Your task to perform on an android device: Open notification settings Image 0: 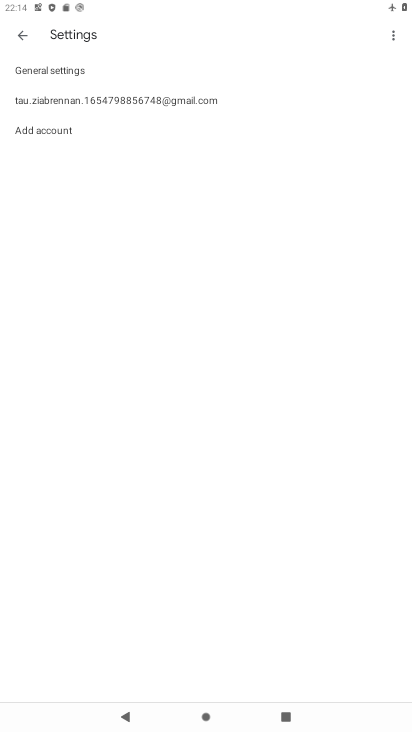
Step 0: press home button
Your task to perform on an android device: Open notification settings Image 1: 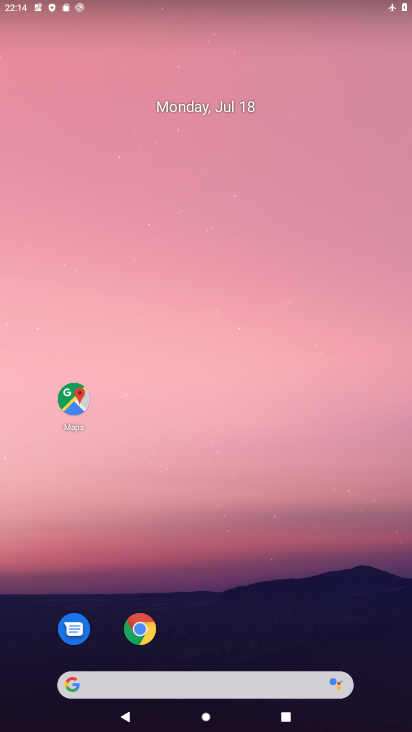
Step 1: drag from (303, 616) to (342, 243)
Your task to perform on an android device: Open notification settings Image 2: 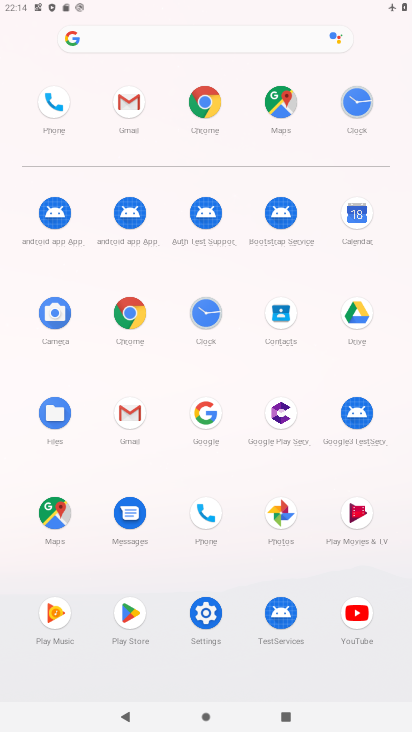
Step 2: click (199, 620)
Your task to perform on an android device: Open notification settings Image 3: 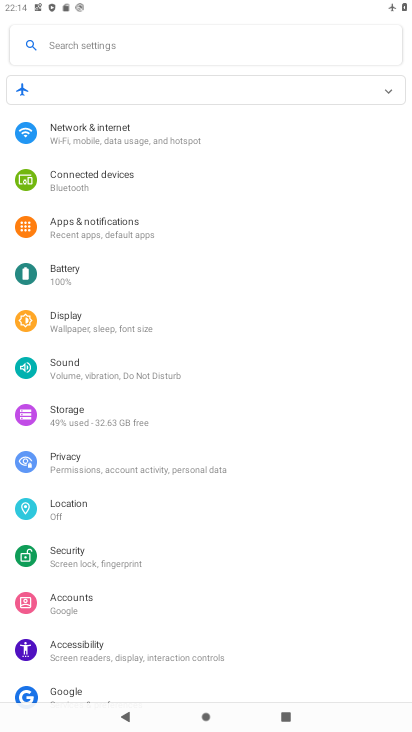
Step 3: click (129, 238)
Your task to perform on an android device: Open notification settings Image 4: 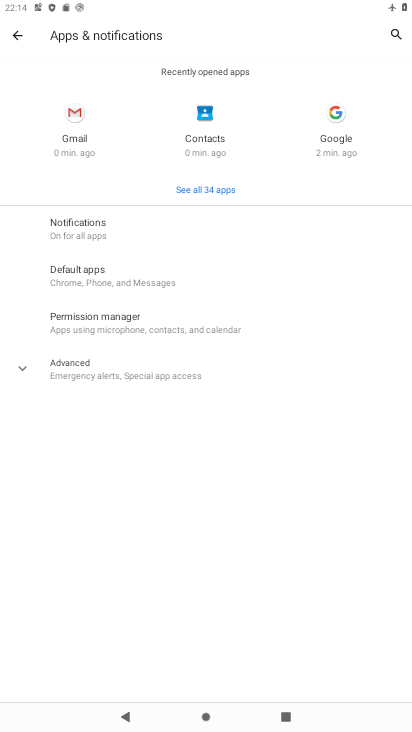
Step 4: click (130, 238)
Your task to perform on an android device: Open notification settings Image 5: 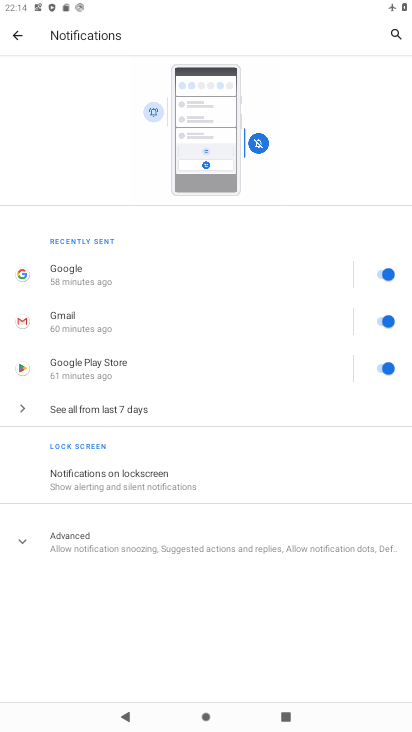
Step 5: task complete